Your task to perform on an android device: Open Google Chrome Image 0: 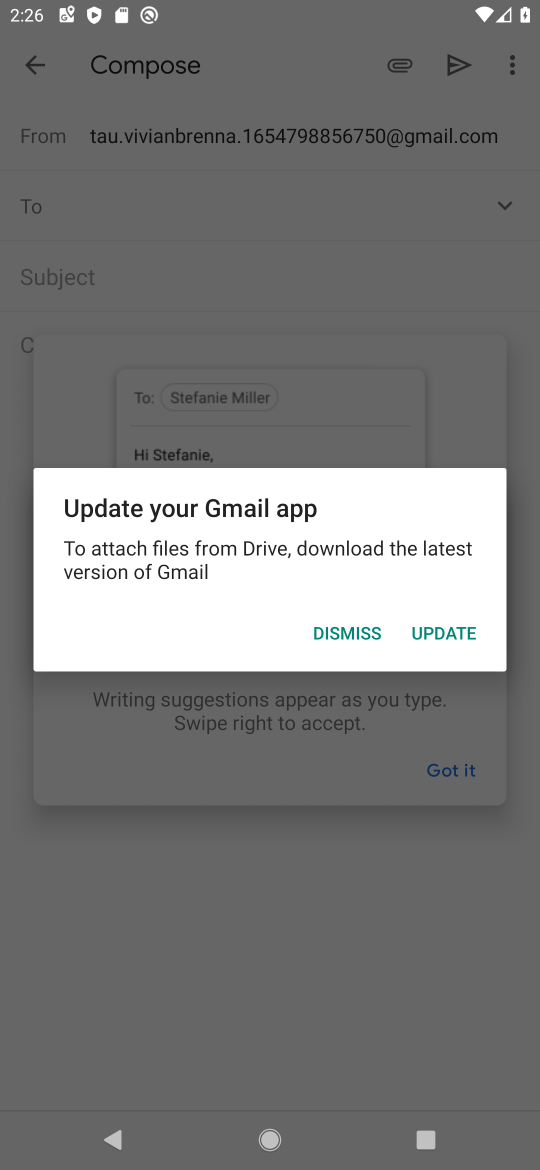
Step 0: press home button
Your task to perform on an android device: Open Google Chrome Image 1: 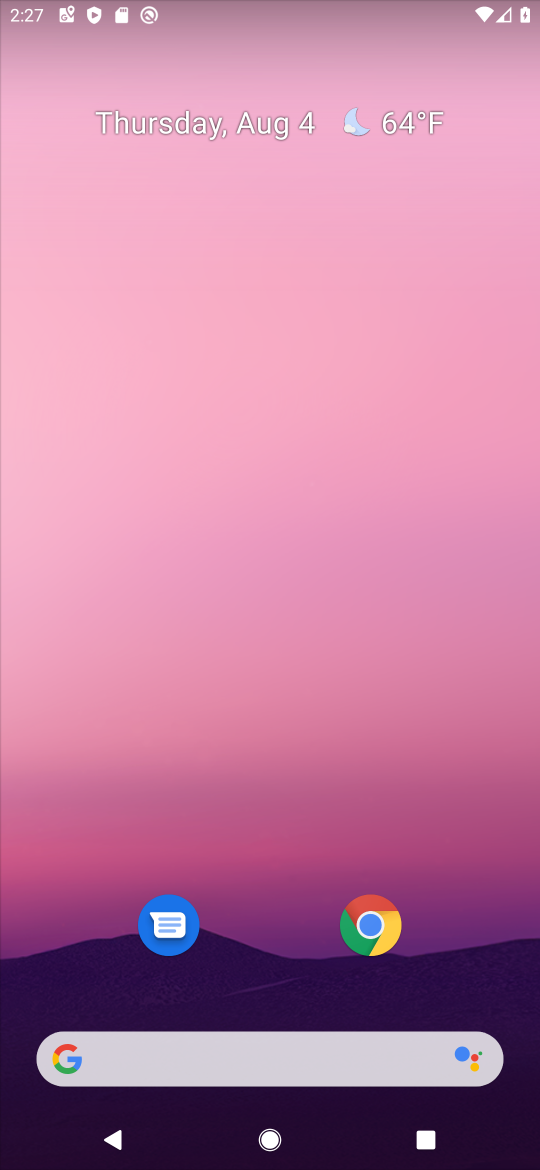
Step 1: click (380, 938)
Your task to perform on an android device: Open Google Chrome Image 2: 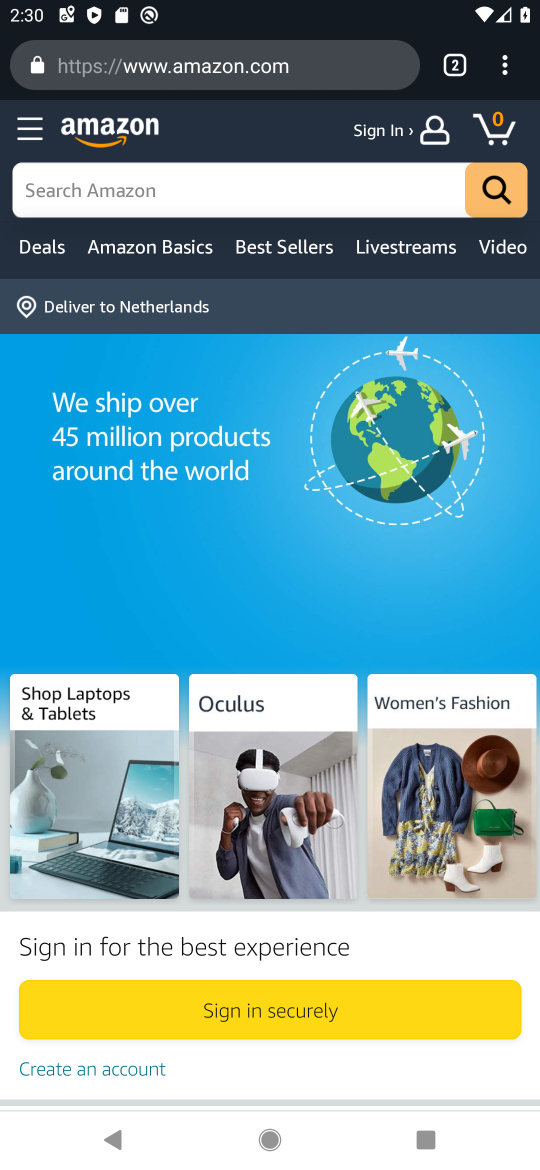
Step 2: task complete